Your task to perform on an android device: Toggle the flashlight Image 0: 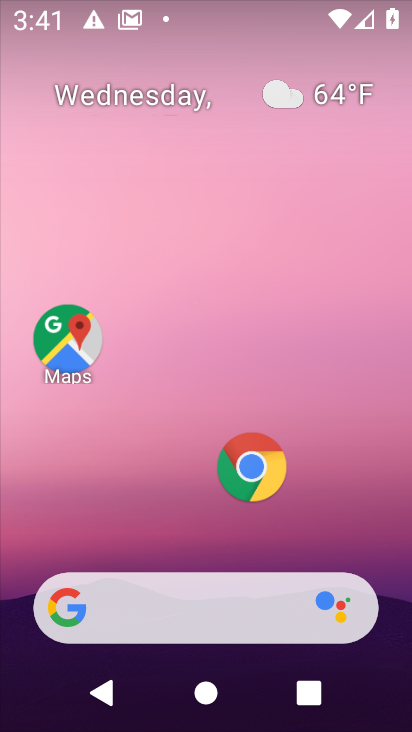
Step 0: drag from (155, 516) to (171, 128)
Your task to perform on an android device: Toggle the flashlight Image 1: 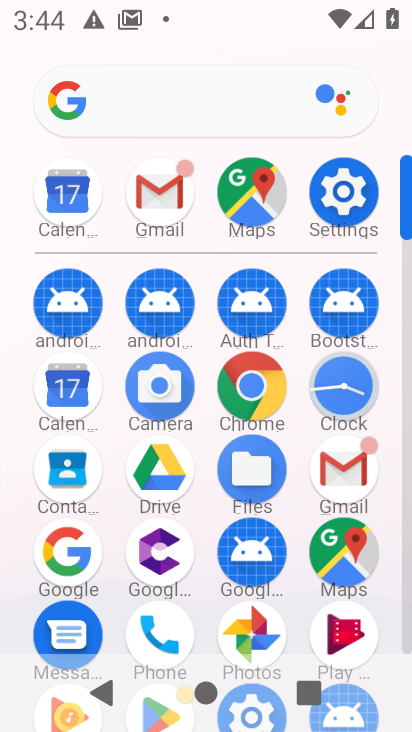
Step 1: task complete